Your task to perform on an android device: Open settings Image 0: 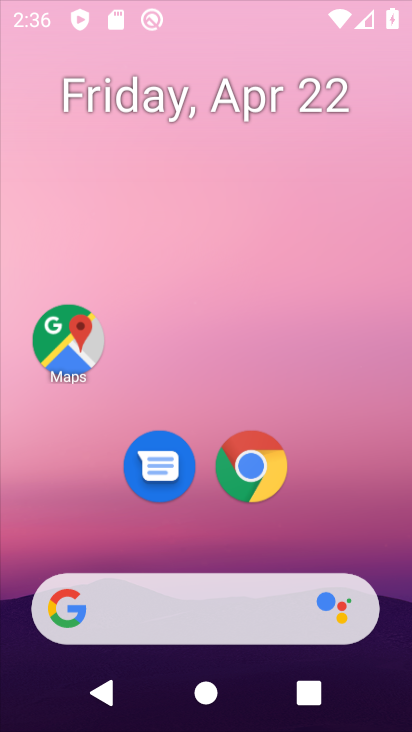
Step 0: drag from (261, 677) to (221, 32)
Your task to perform on an android device: Open settings Image 1: 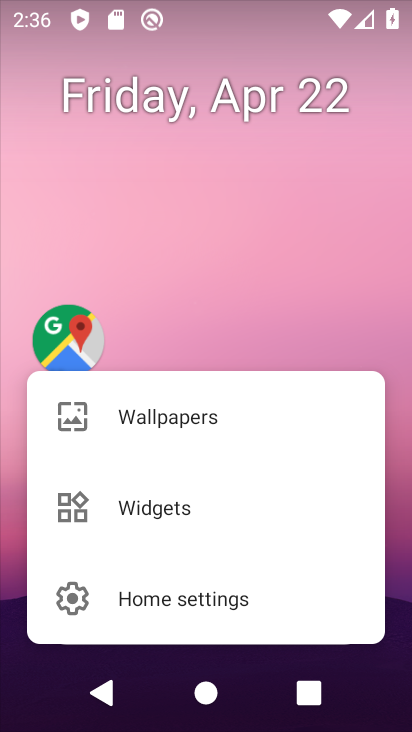
Step 1: press home button
Your task to perform on an android device: Open settings Image 2: 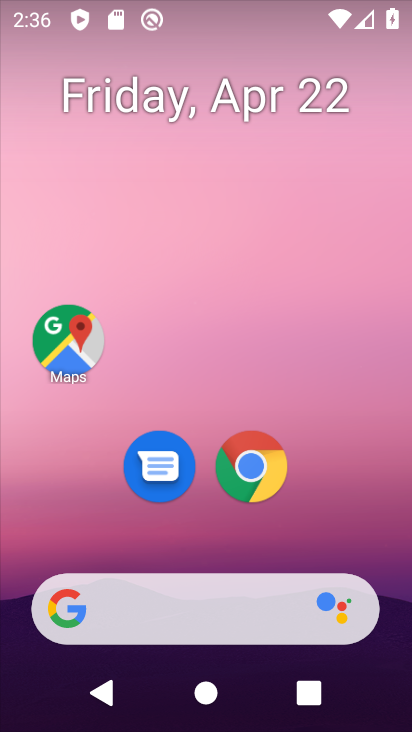
Step 2: drag from (261, 136) to (263, 5)
Your task to perform on an android device: Open settings Image 3: 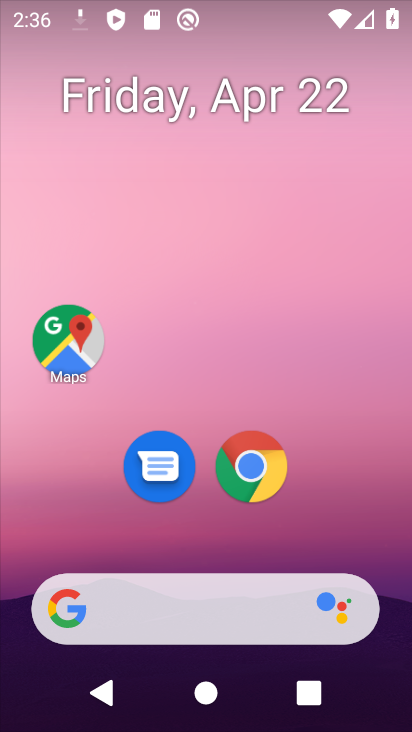
Step 3: drag from (257, 655) to (275, 3)
Your task to perform on an android device: Open settings Image 4: 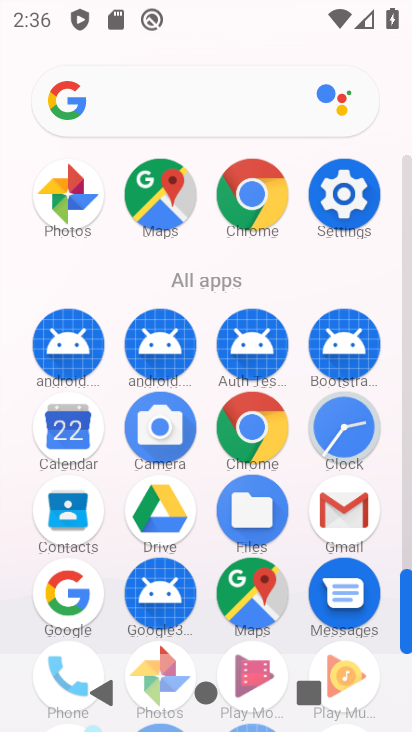
Step 4: click (339, 175)
Your task to perform on an android device: Open settings Image 5: 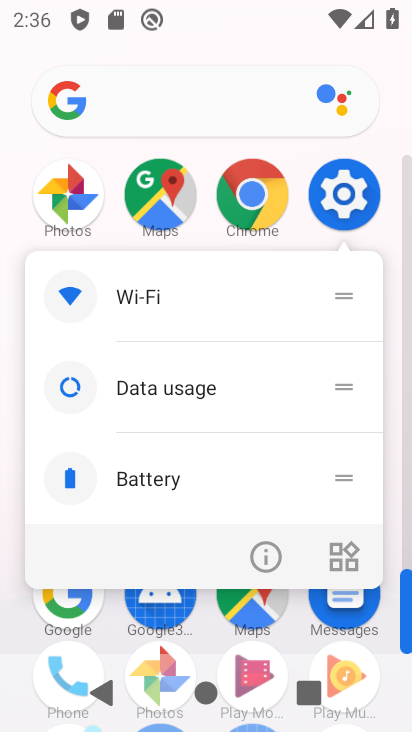
Step 5: click (347, 217)
Your task to perform on an android device: Open settings Image 6: 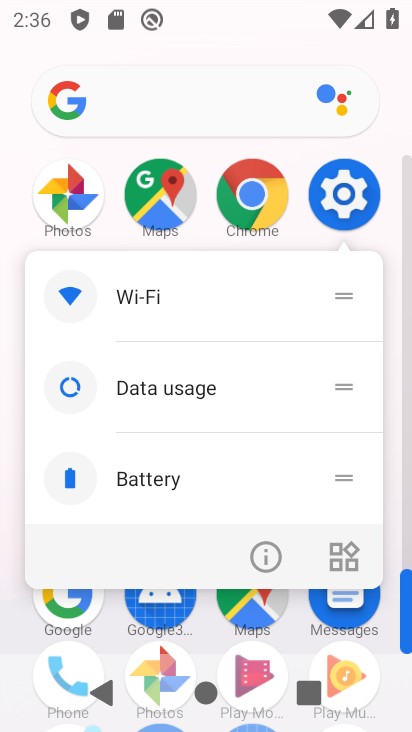
Step 6: click (347, 217)
Your task to perform on an android device: Open settings Image 7: 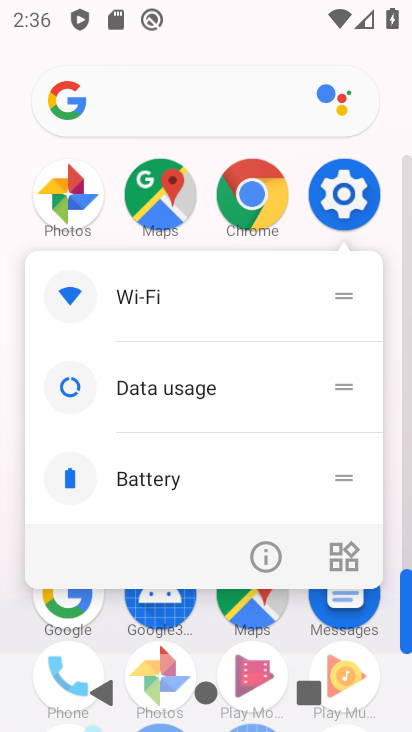
Step 7: click (333, 196)
Your task to perform on an android device: Open settings Image 8: 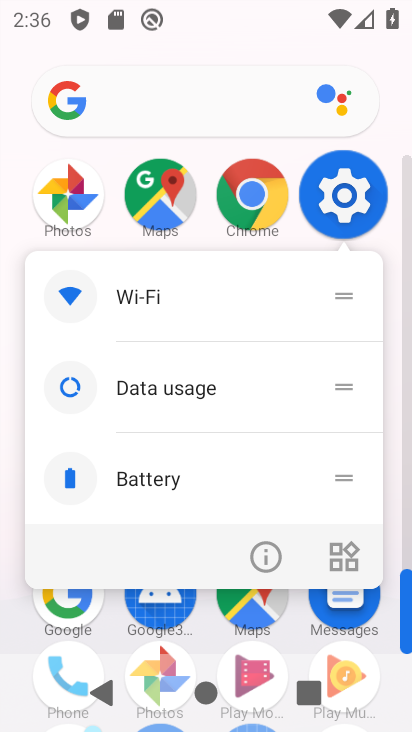
Step 8: click (333, 196)
Your task to perform on an android device: Open settings Image 9: 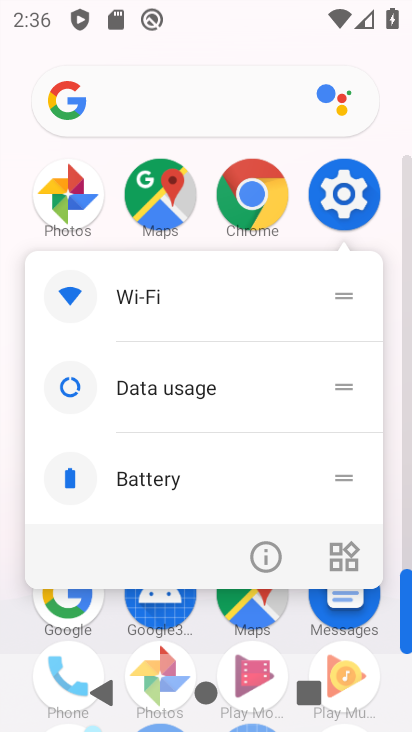
Step 9: click (340, 182)
Your task to perform on an android device: Open settings Image 10: 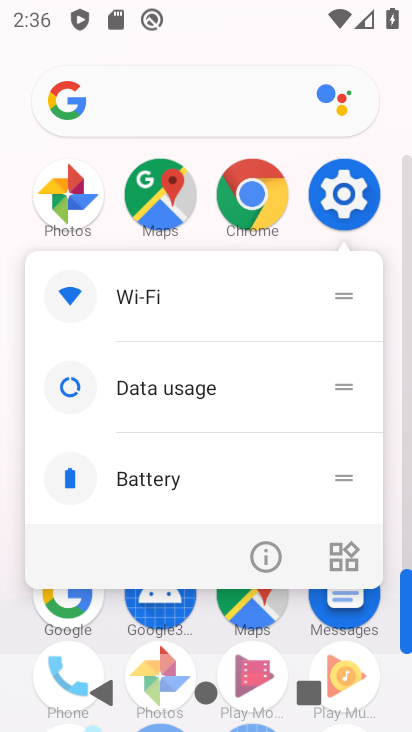
Step 10: click (340, 182)
Your task to perform on an android device: Open settings Image 11: 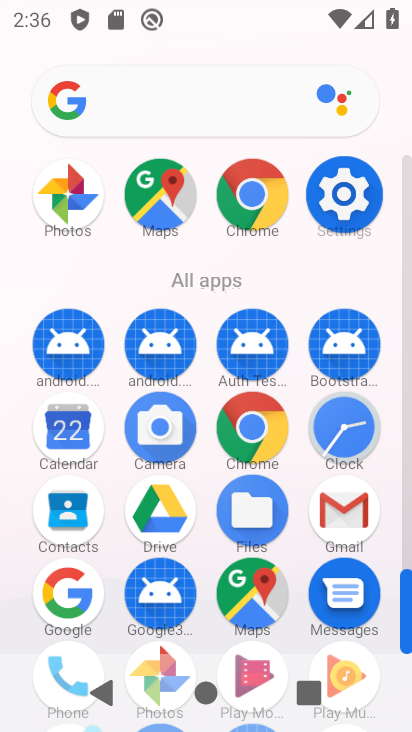
Step 11: click (340, 182)
Your task to perform on an android device: Open settings Image 12: 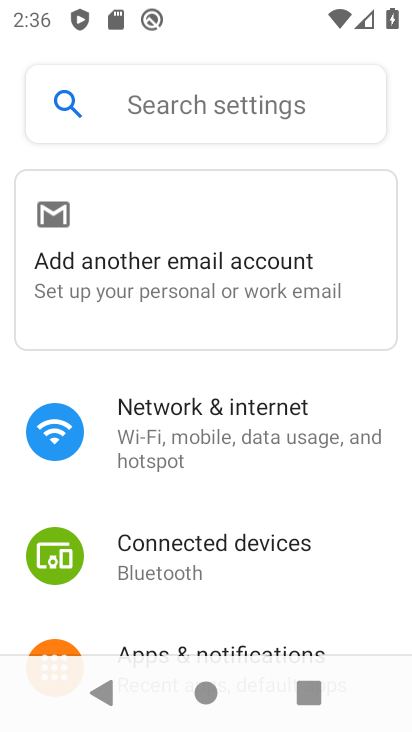
Step 12: task complete